Your task to perform on an android device: What's the weather going to be this weekend? Image 0: 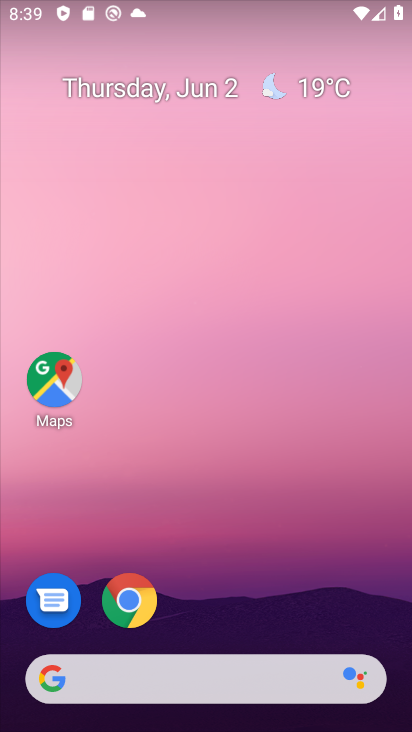
Step 0: drag from (212, 626) to (211, 144)
Your task to perform on an android device: What's the weather going to be this weekend? Image 1: 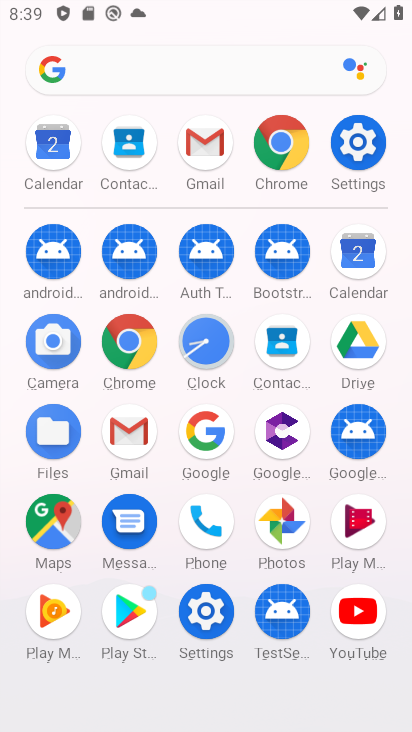
Step 1: click (350, 256)
Your task to perform on an android device: What's the weather going to be this weekend? Image 2: 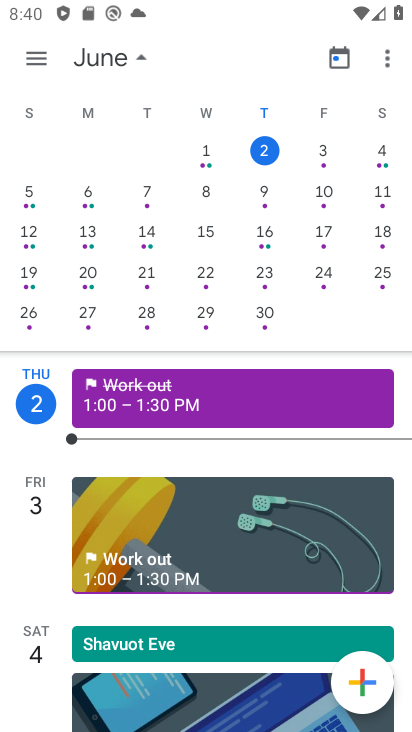
Step 2: click (376, 145)
Your task to perform on an android device: What's the weather going to be this weekend? Image 3: 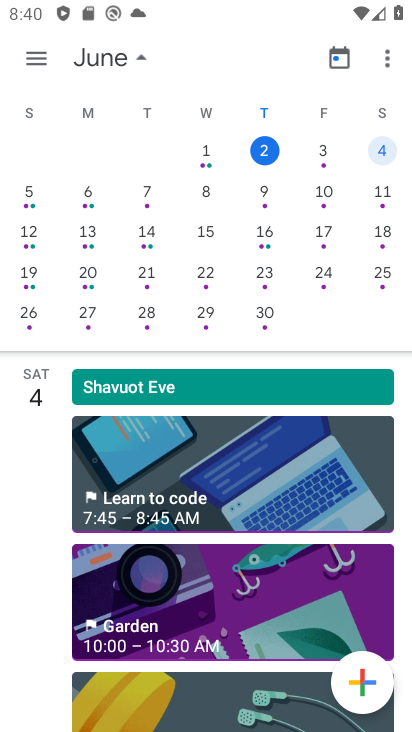
Step 3: task complete